Your task to perform on an android device: toggle notifications settings in the gmail app Image 0: 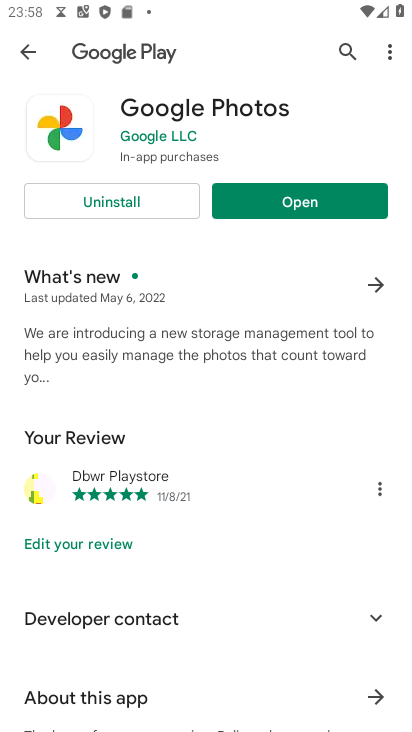
Step 0: press back button
Your task to perform on an android device: toggle notifications settings in the gmail app Image 1: 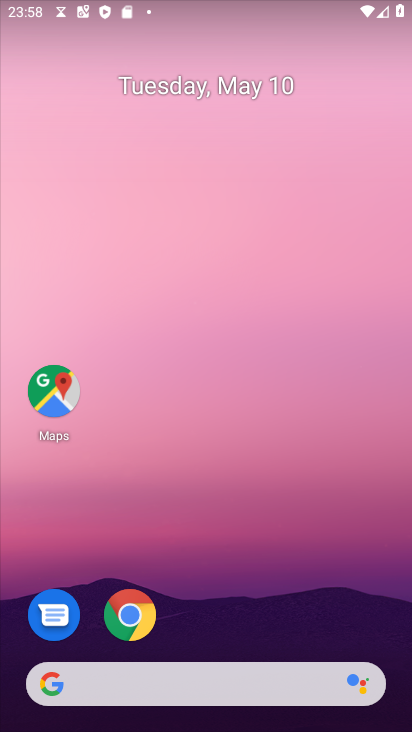
Step 1: drag from (253, 616) to (324, 143)
Your task to perform on an android device: toggle notifications settings in the gmail app Image 2: 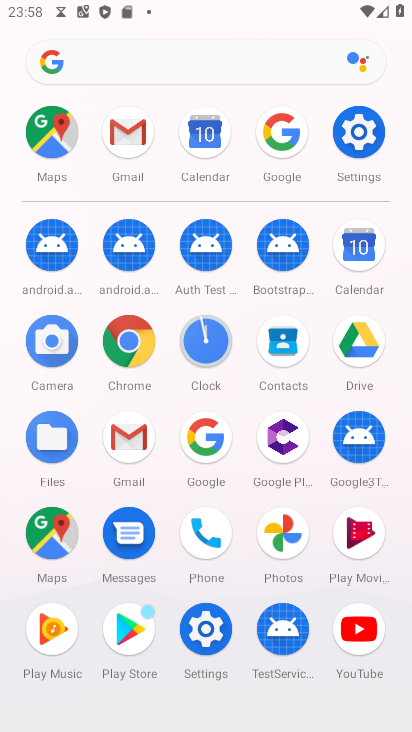
Step 2: click (126, 126)
Your task to perform on an android device: toggle notifications settings in the gmail app Image 3: 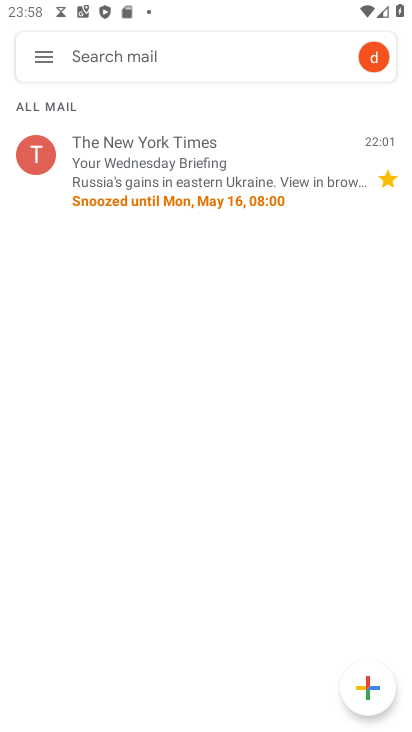
Step 3: click (38, 58)
Your task to perform on an android device: toggle notifications settings in the gmail app Image 4: 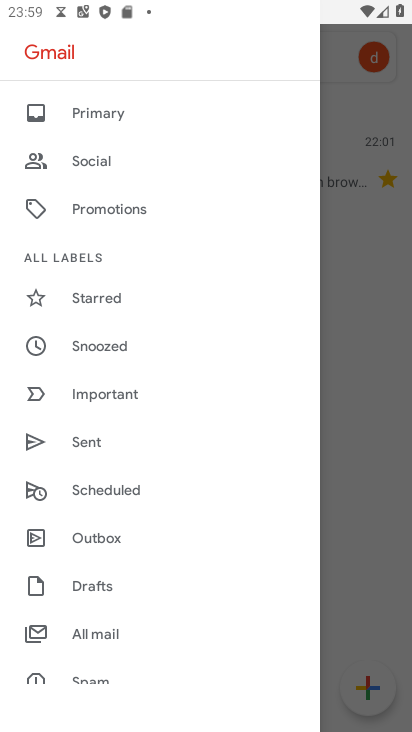
Step 4: drag from (145, 658) to (184, 553)
Your task to perform on an android device: toggle notifications settings in the gmail app Image 5: 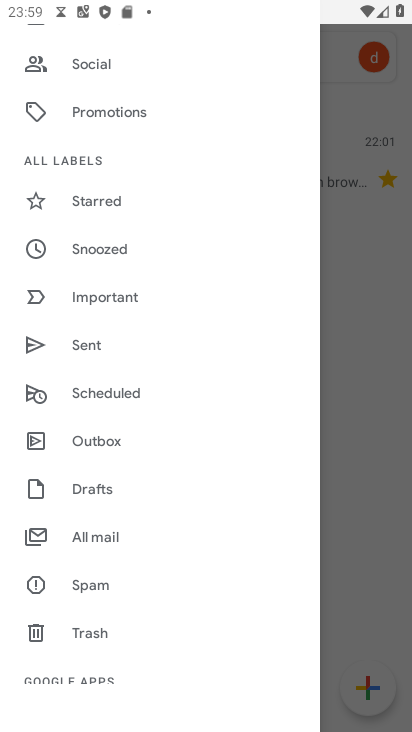
Step 5: drag from (162, 623) to (214, 432)
Your task to perform on an android device: toggle notifications settings in the gmail app Image 6: 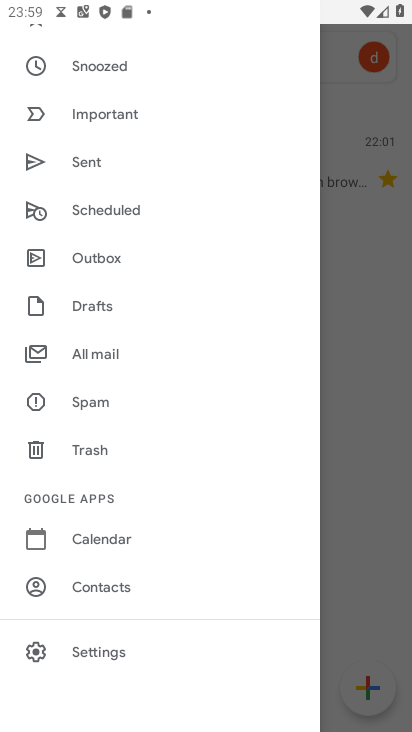
Step 6: click (104, 645)
Your task to perform on an android device: toggle notifications settings in the gmail app Image 7: 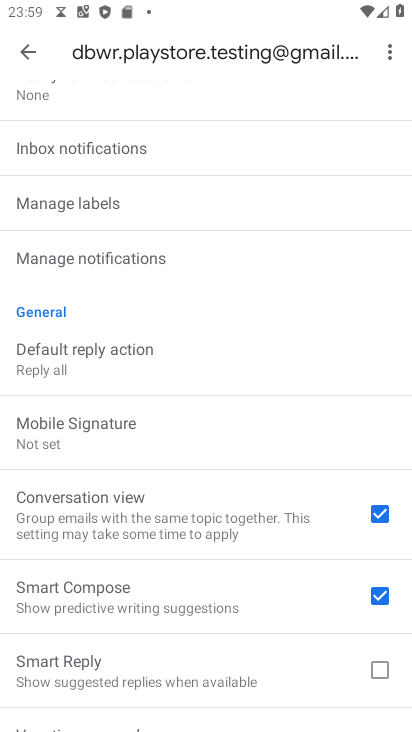
Step 7: click (156, 261)
Your task to perform on an android device: toggle notifications settings in the gmail app Image 8: 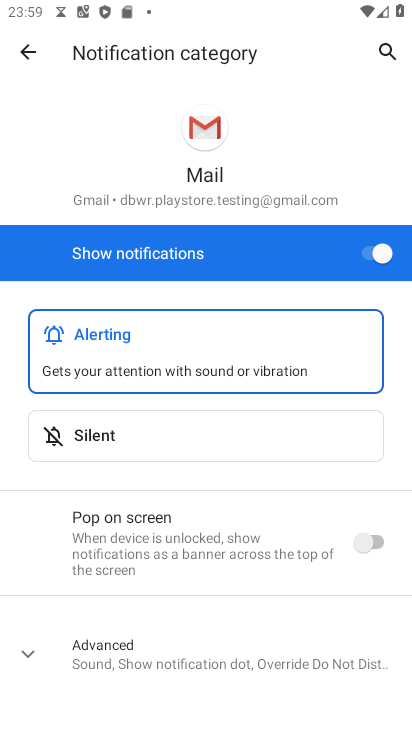
Step 8: click (382, 253)
Your task to perform on an android device: toggle notifications settings in the gmail app Image 9: 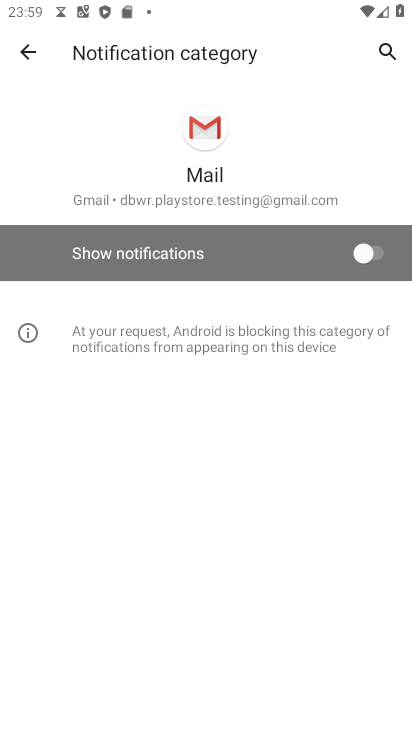
Step 9: task complete